Your task to perform on an android device: see sites visited before in the chrome app Image 0: 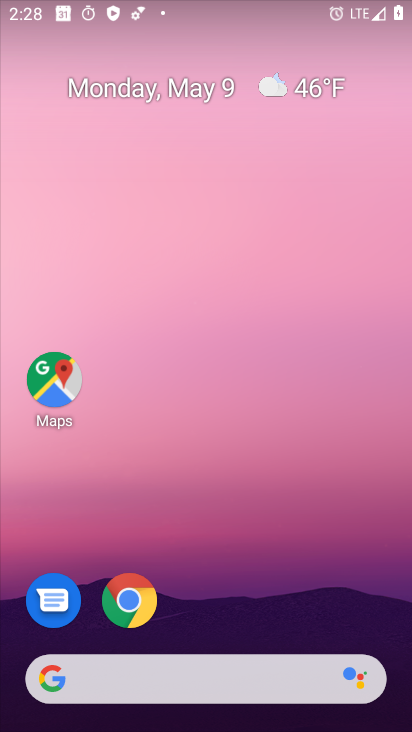
Step 0: click (140, 632)
Your task to perform on an android device: see sites visited before in the chrome app Image 1: 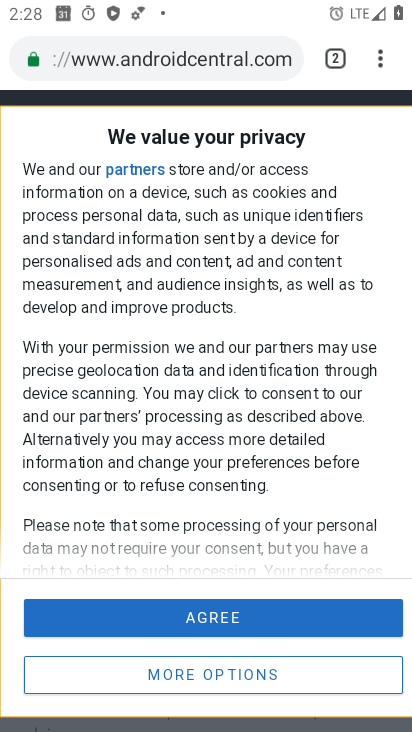
Step 1: click (395, 61)
Your task to perform on an android device: see sites visited before in the chrome app Image 2: 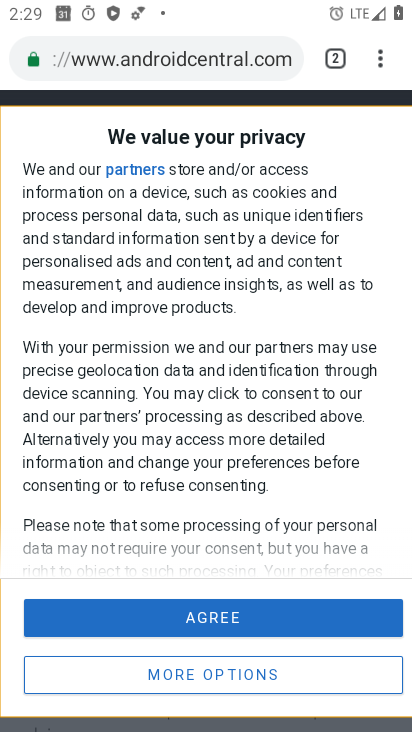
Step 2: click (380, 68)
Your task to perform on an android device: see sites visited before in the chrome app Image 3: 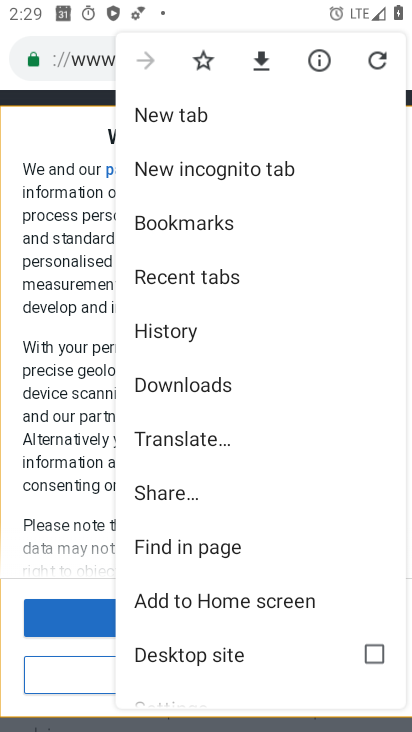
Step 3: click (178, 340)
Your task to perform on an android device: see sites visited before in the chrome app Image 4: 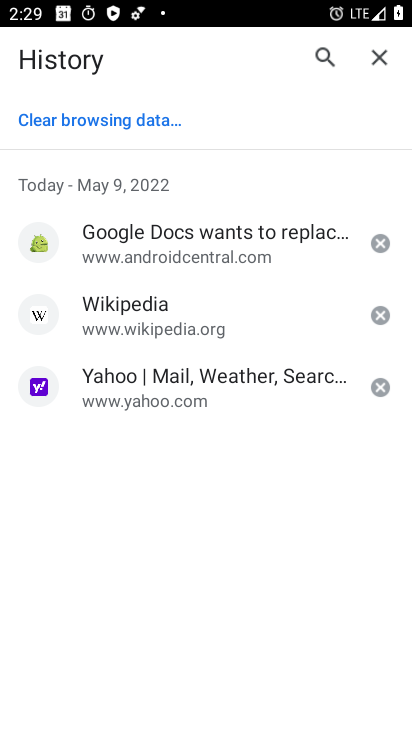
Step 4: task complete